Your task to perform on an android device: open device folders in google photos Image 0: 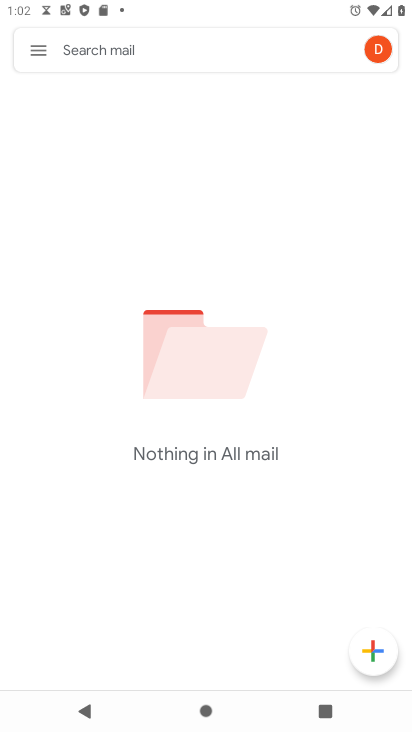
Step 0: press home button
Your task to perform on an android device: open device folders in google photos Image 1: 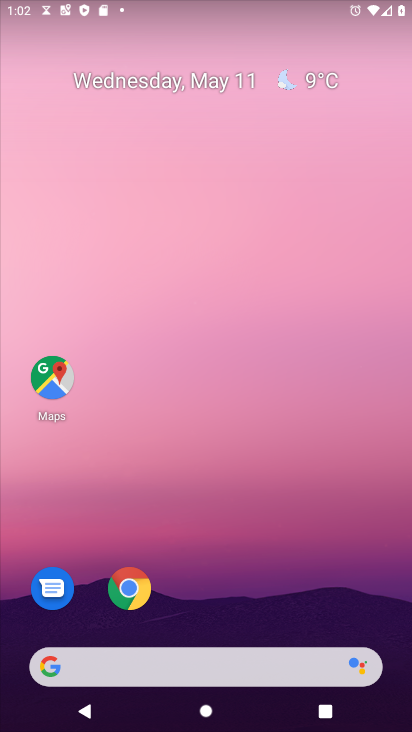
Step 1: drag from (349, 599) to (249, 7)
Your task to perform on an android device: open device folders in google photos Image 2: 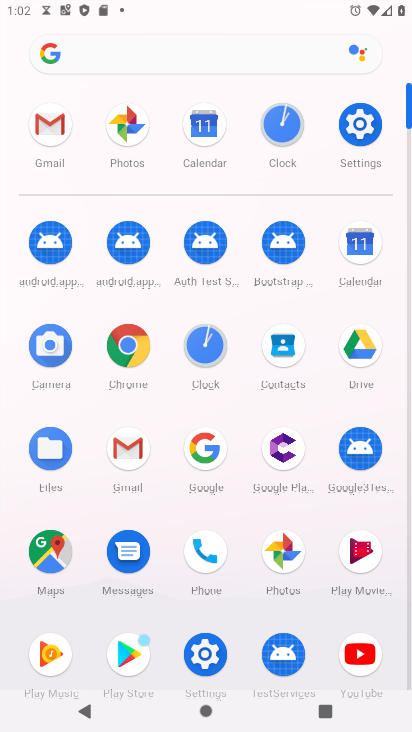
Step 2: click (113, 168)
Your task to perform on an android device: open device folders in google photos Image 3: 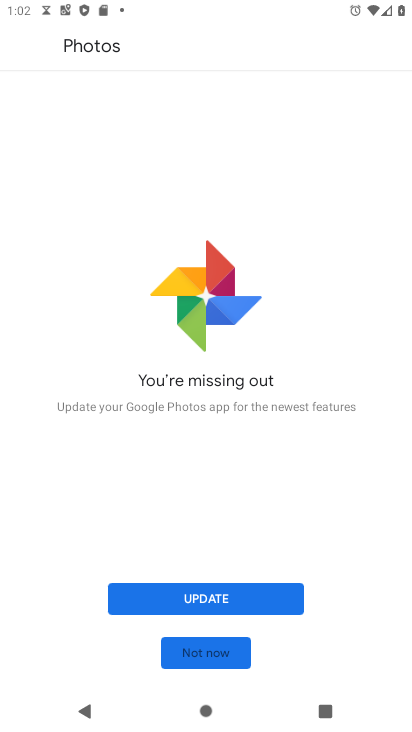
Step 3: click (201, 651)
Your task to perform on an android device: open device folders in google photos Image 4: 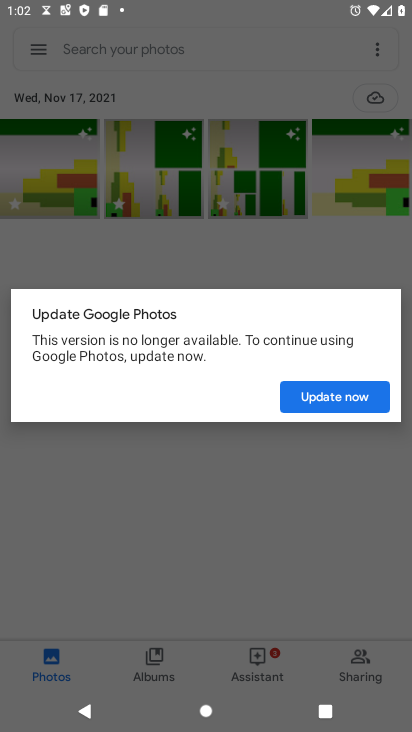
Step 4: click (344, 399)
Your task to perform on an android device: open device folders in google photos Image 5: 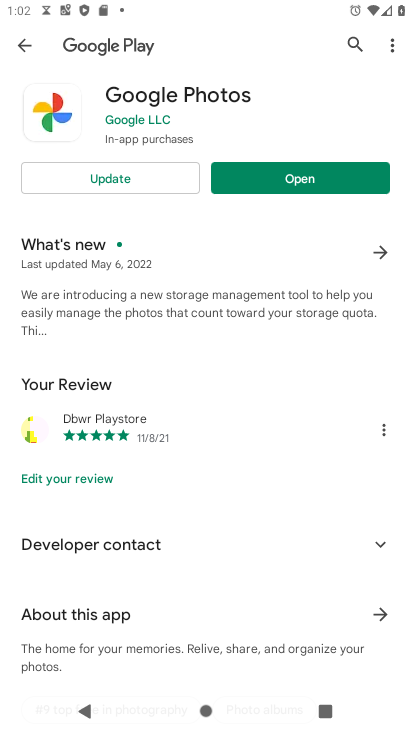
Step 5: click (293, 189)
Your task to perform on an android device: open device folders in google photos Image 6: 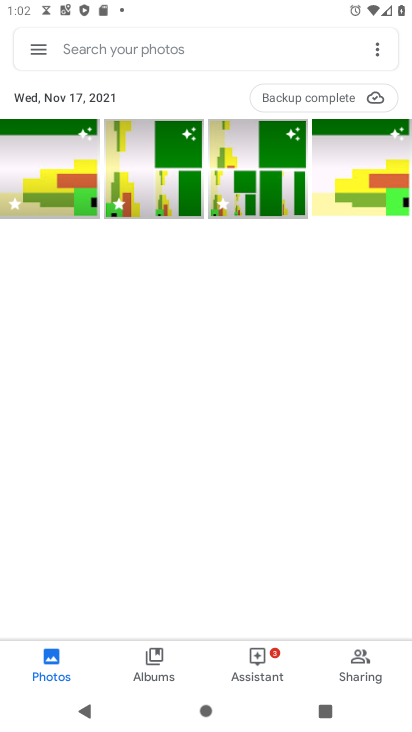
Step 6: click (41, 58)
Your task to perform on an android device: open device folders in google photos Image 7: 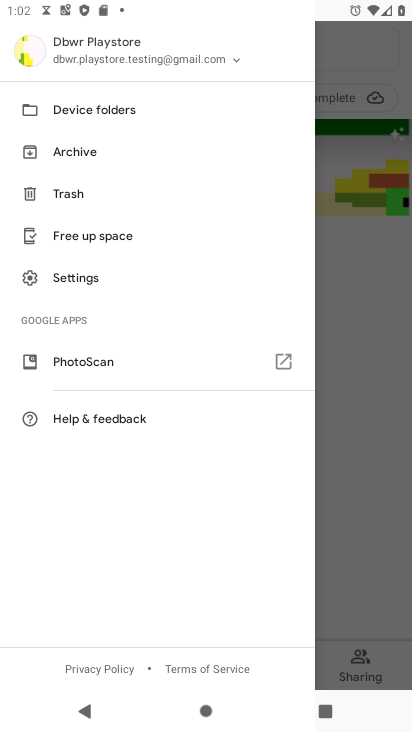
Step 7: click (62, 116)
Your task to perform on an android device: open device folders in google photos Image 8: 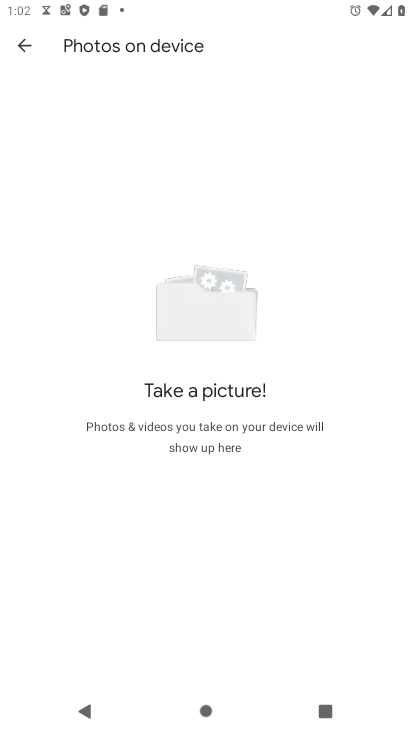
Step 8: task complete